Your task to perform on an android device: change the clock display to show seconds Image 0: 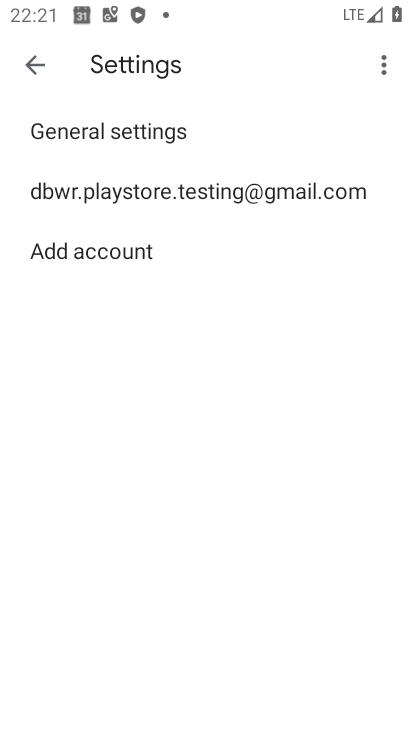
Step 0: press home button
Your task to perform on an android device: change the clock display to show seconds Image 1: 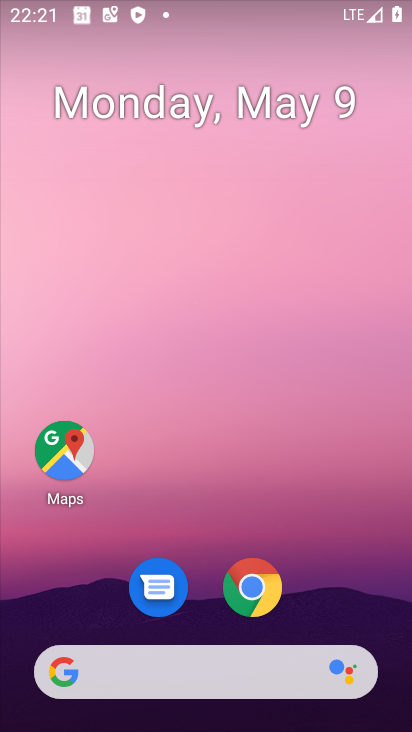
Step 1: drag from (228, 525) to (269, 438)
Your task to perform on an android device: change the clock display to show seconds Image 2: 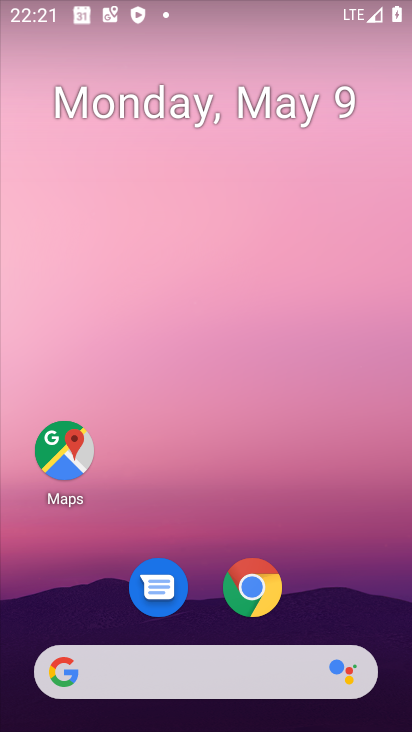
Step 2: drag from (176, 622) to (256, 304)
Your task to perform on an android device: change the clock display to show seconds Image 3: 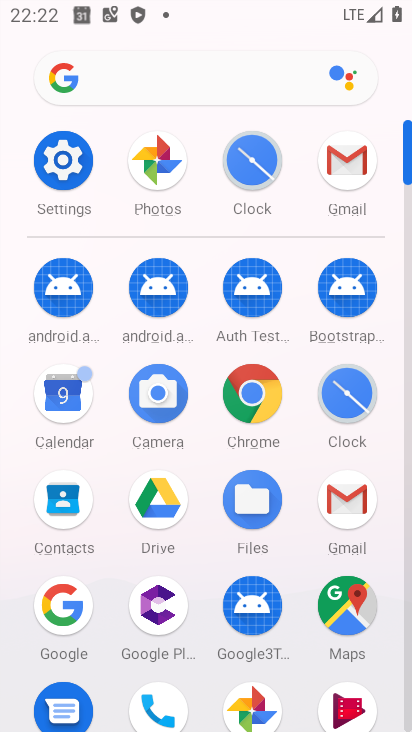
Step 3: click (359, 382)
Your task to perform on an android device: change the clock display to show seconds Image 4: 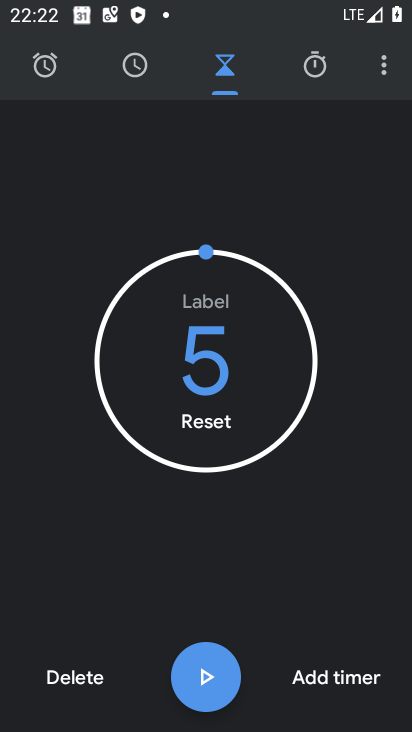
Step 4: click (392, 61)
Your task to perform on an android device: change the clock display to show seconds Image 5: 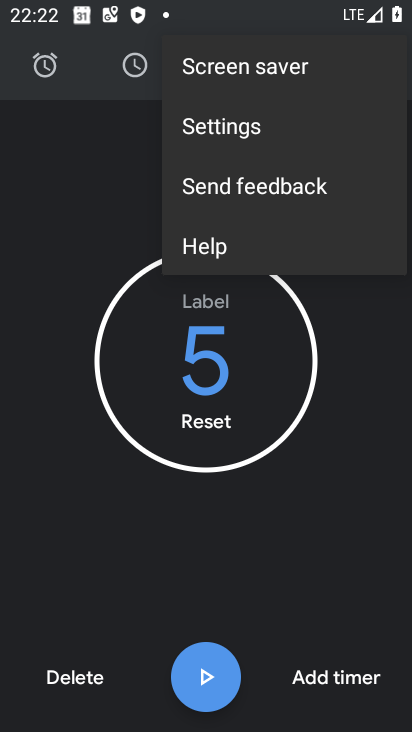
Step 5: click (329, 105)
Your task to perform on an android device: change the clock display to show seconds Image 6: 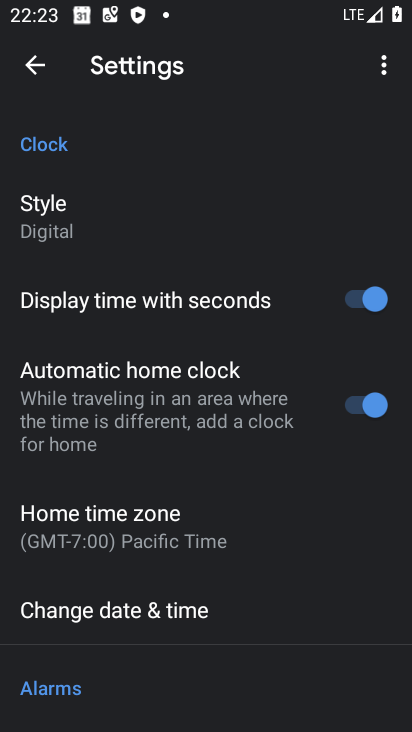
Step 6: task complete